Your task to perform on an android device: Go to wifi settings Image 0: 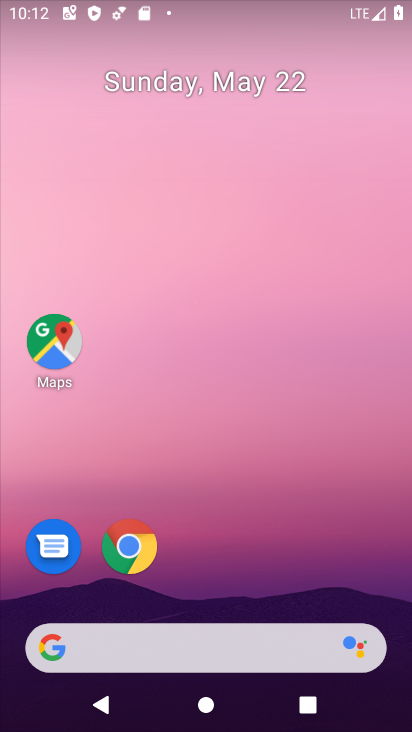
Step 0: drag from (216, 532) to (243, 84)
Your task to perform on an android device: Go to wifi settings Image 1: 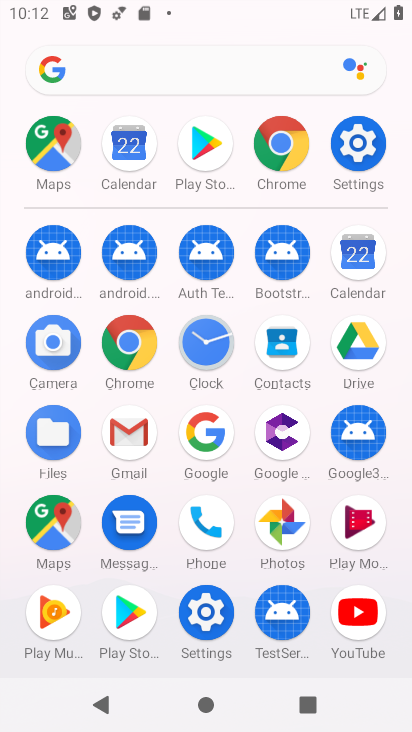
Step 1: click (341, 150)
Your task to perform on an android device: Go to wifi settings Image 2: 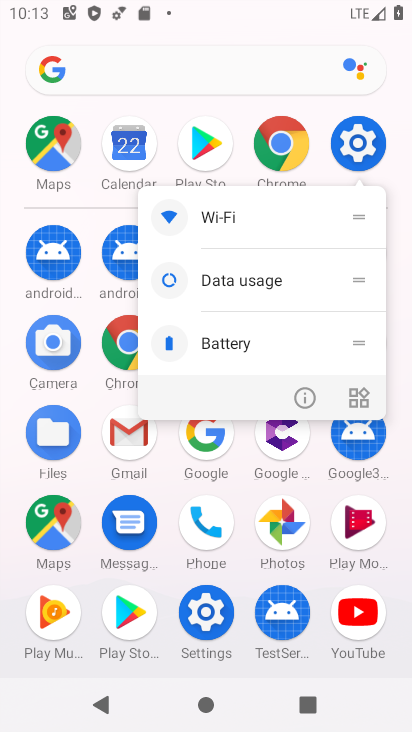
Step 2: click (220, 229)
Your task to perform on an android device: Go to wifi settings Image 3: 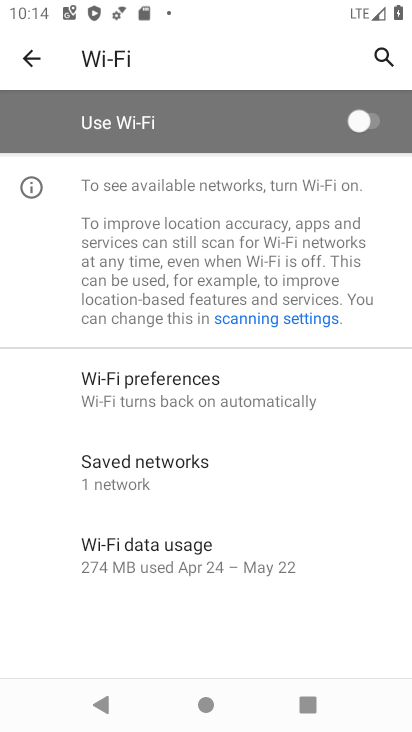
Step 3: task complete